Your task to perform on an android device: check out phone information Image 0: 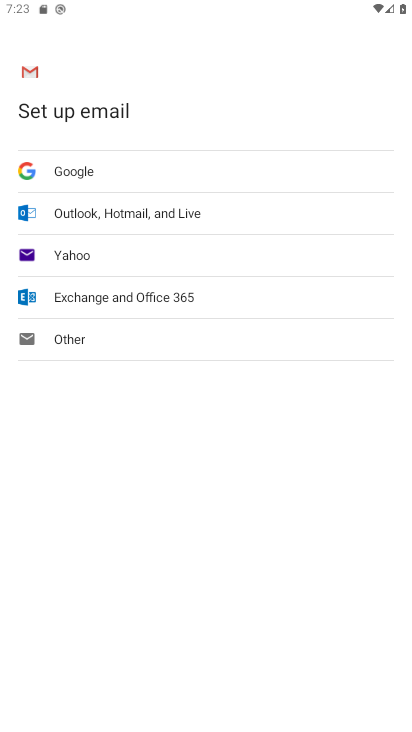
Step 0: press home button
Your task to perform on an android device: check out phone information Image 1: 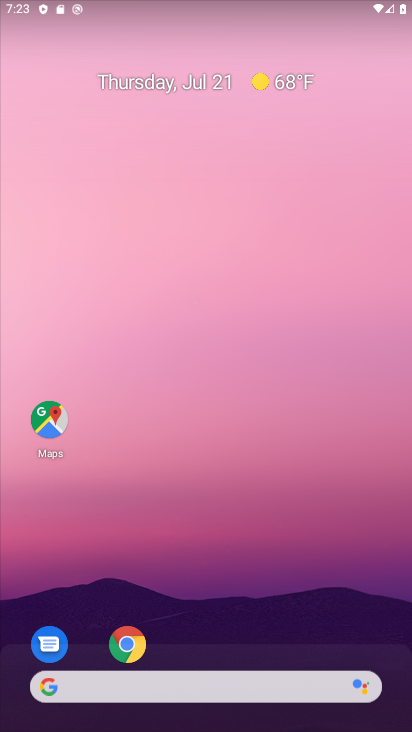
Step 1: drag from (221, 625) to (235, 21)
Your task to perform on an android device: check out phone information Image 2: 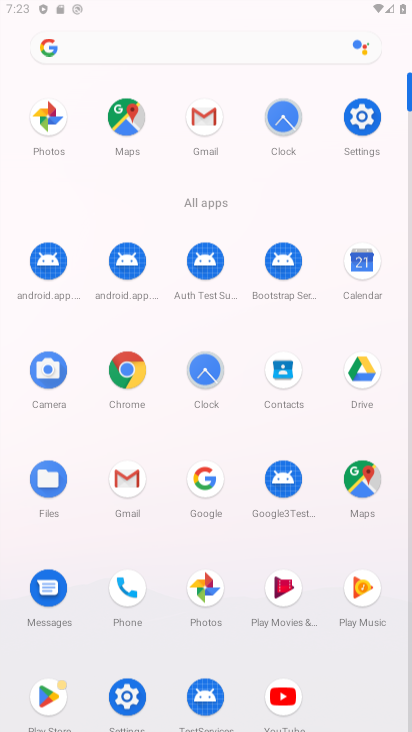
Step 2: drag from (218, 632) to (297, 192)
Your task to perform on an android device: check out phone information Image 3: 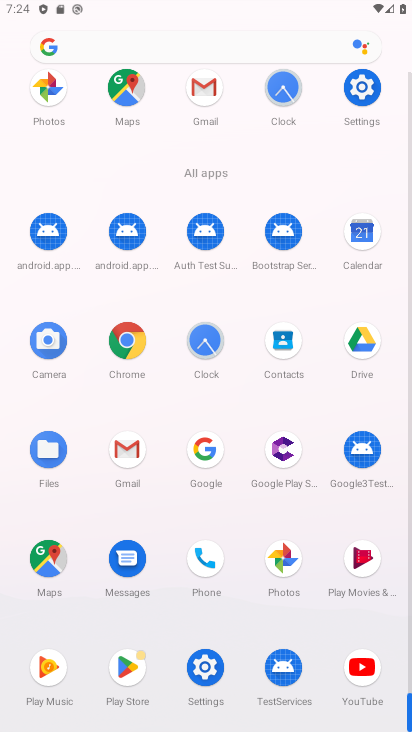
Step 3: click (353, 101)
Your task to perform on an android device: check out phone information Image 4: 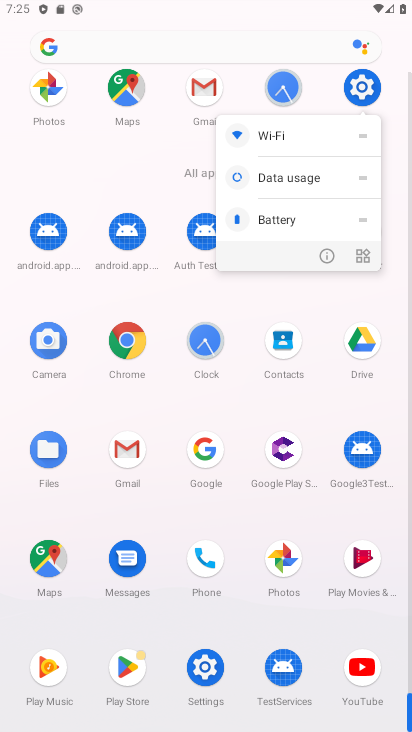
Step 4: click (363, 89)
Your task to perform on an android device: check out phone information Image 5: 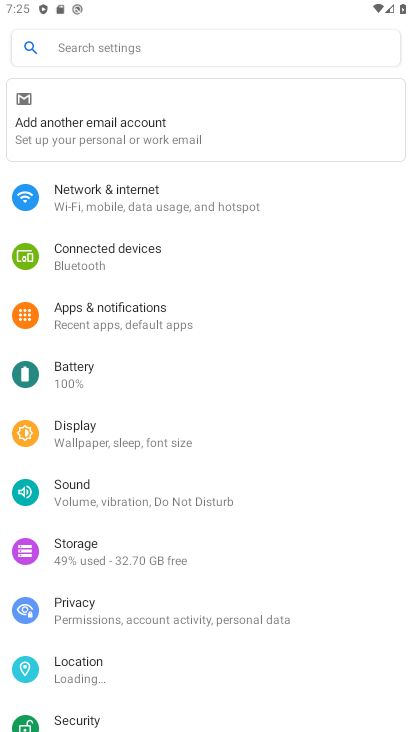
Step 5: drag from (137, 682) to (248, 86)
Your task to perform on an android device: check out phone information Image 6: 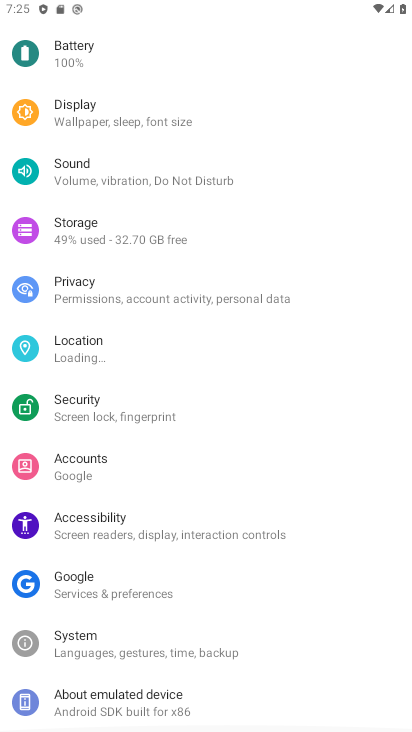
Step 6: click (76, 708)
Your task to perform on an android device: check out phone information Image 7: 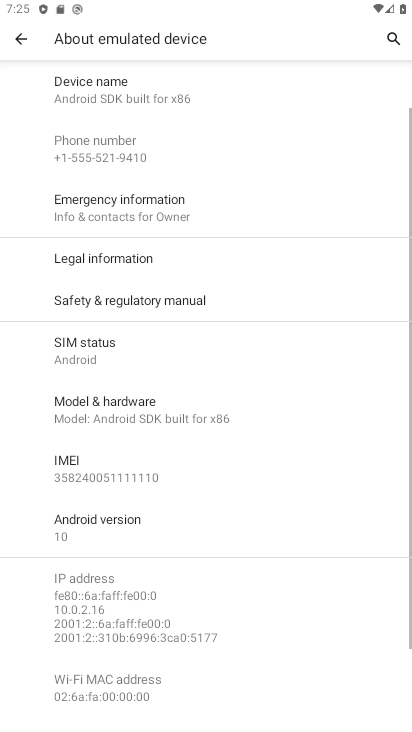
Step 7: task complete